Your task to perform on an android device: Turn on the flashlight Image 0: 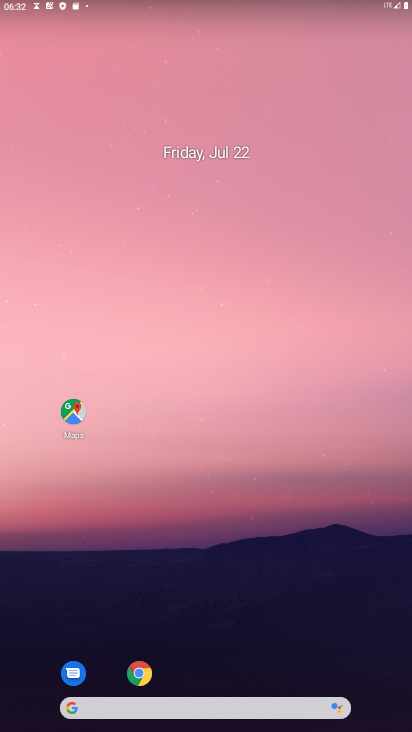
Step 0: press home button
Your task to perform on an android device: Turn on the flashlight Image 1: 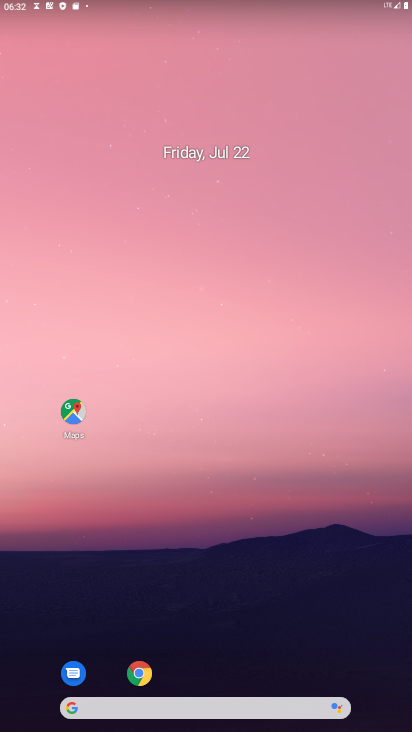
Step 1: task complete